Your task to perform on an android device: toggle pop-ups in chrome Image 0: 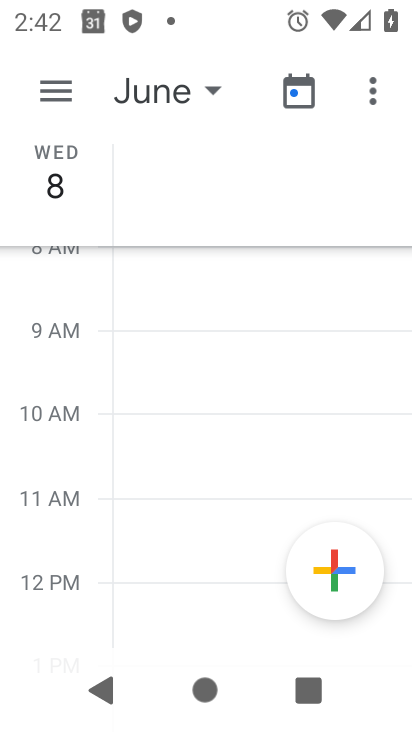
Step 0: press home button
Your task to perform on an android device: toggle pop-ups in chrome Image 1: 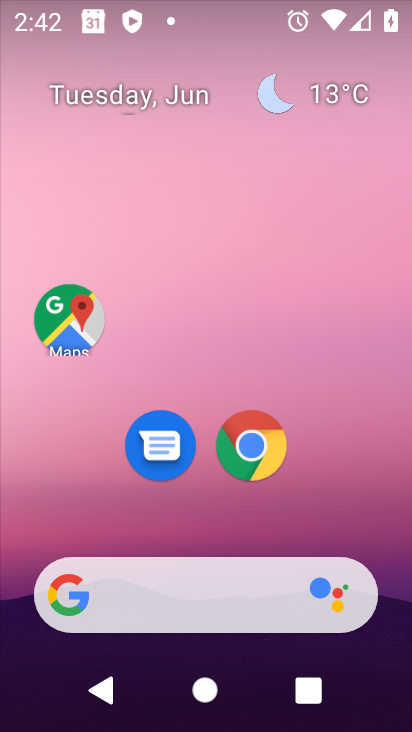
Step 1: click (252, 446)
Your task to perform on an android device: toggle pop-ups in chrome Image 2: 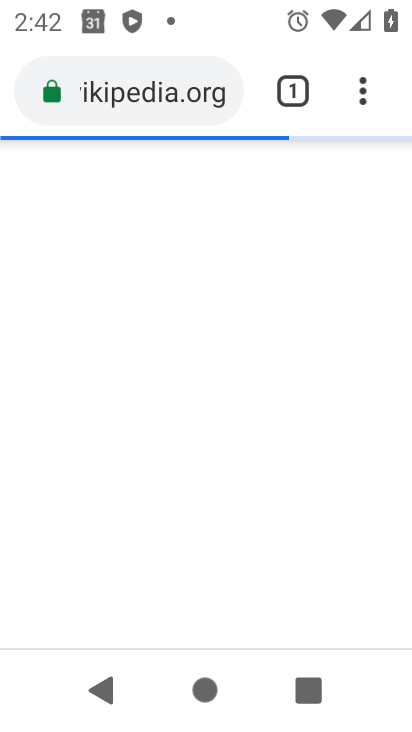
Step 2: click (360, 102)
Your task to perform on an android device: toggle pop-ups in chrome Image 3: 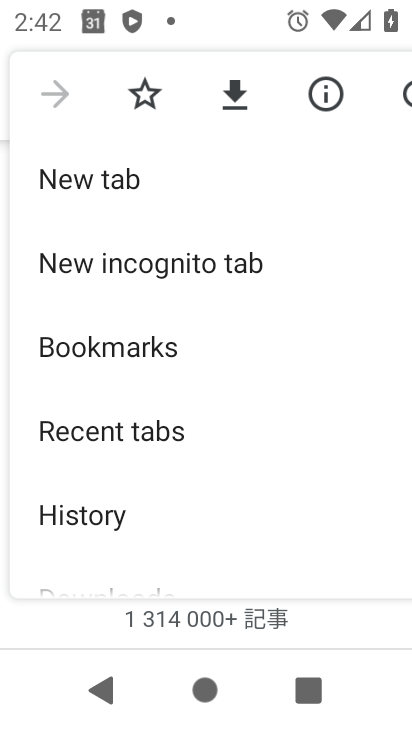
Step 3: drag from (222, 535) to (270, 135)
Your task to perform on an android device: toggle pop-ups in chrome Image 4: 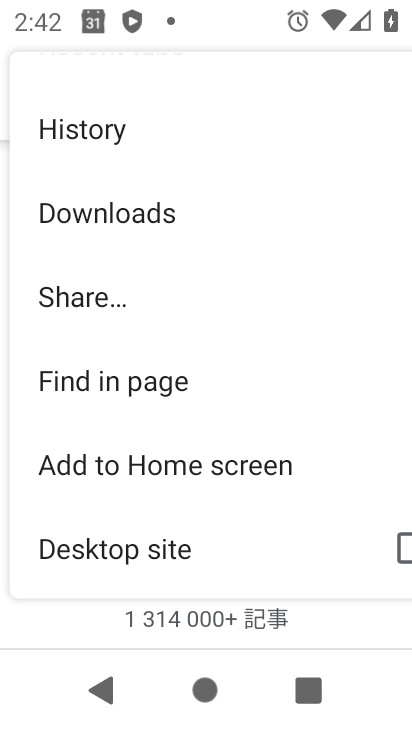
Step 4: drag from (255, 560) to (269, 160)
Your task to perform on an android device: toggle pop-ups in chrome Image 5: 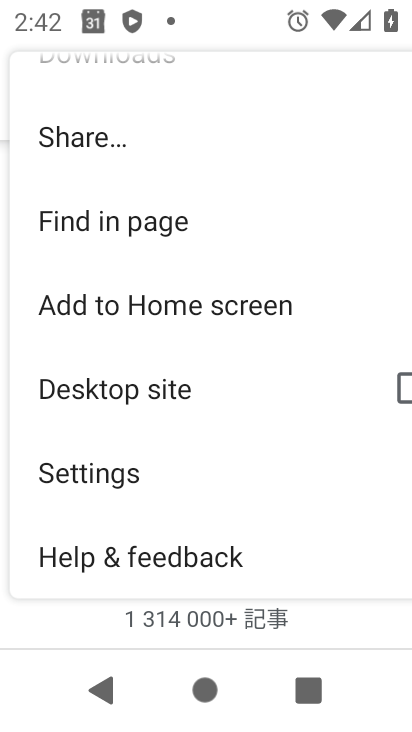
Step 5: click (92, 490)
Your task to perform on an android device: toggle pop-ups in chrome Image 6: 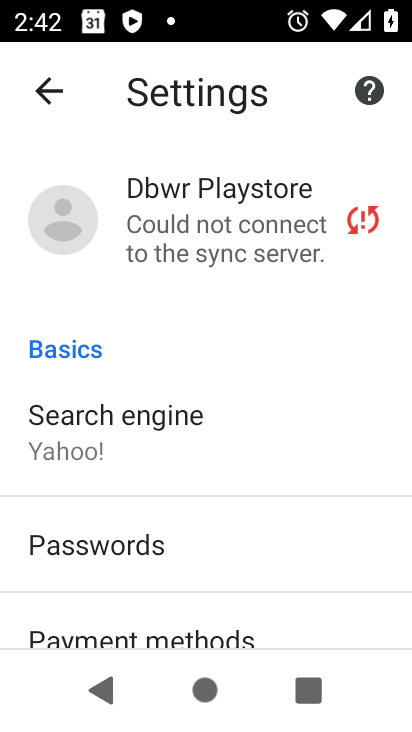
Step 6: drag from (289, 618) to (268, 190)
Your task to perform on an android device: toggle pop-ups in chrome Image 7: 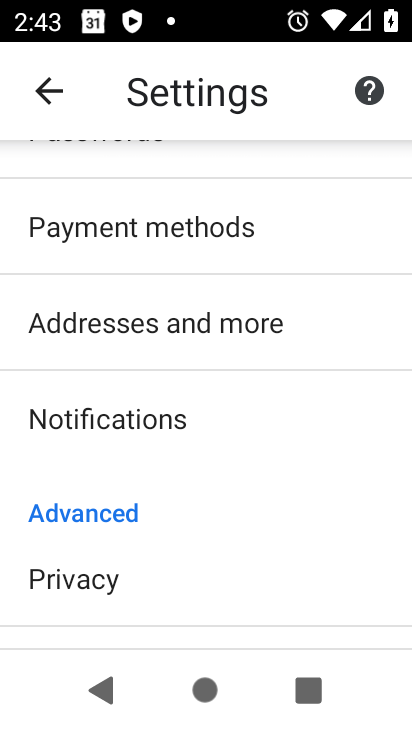
Step 7: drag from (227, 562) to (250, 172)
Your task to perform on an android device: toggle pop-ups in chrome Image 8: 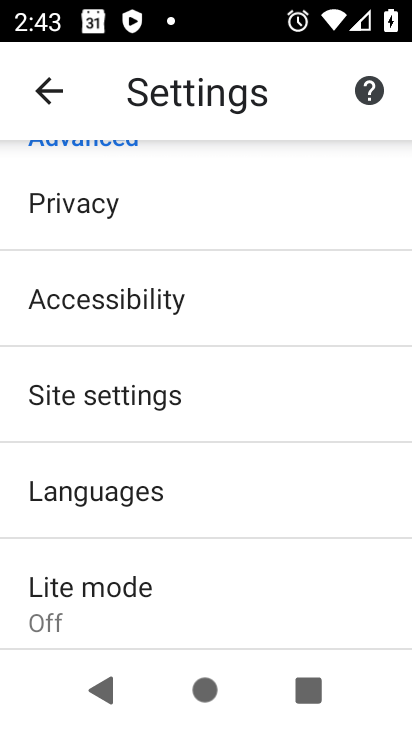
Step 8: click (121, 398)
Your task to perform on an android device: toggle pop-ups in chrome Image 9: 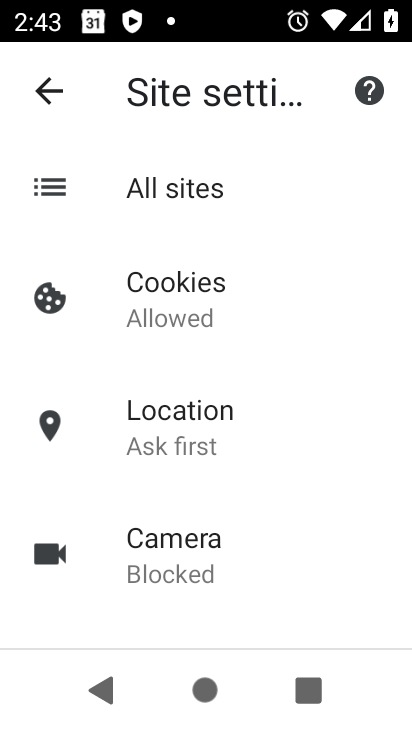
Step 9: drag from (277, 601) to (260, 185)
Your task to perform on an android device: toggle pop-ups in chrome Image 10: 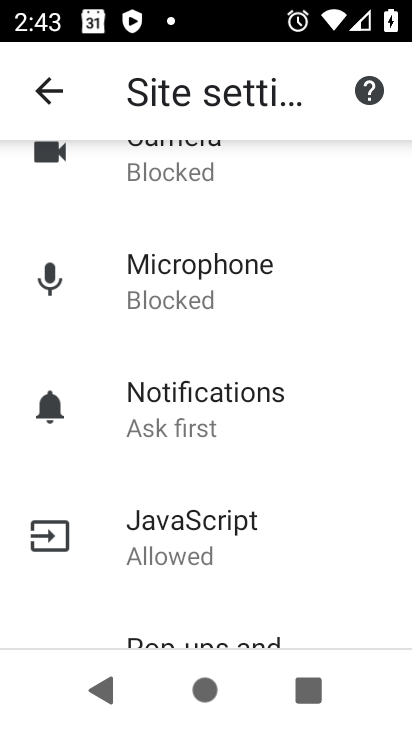
Step 10: drag from (283, 594) to (278, 212)
Your task to perform on an android device: toggle pop-ups in chrome Image 11: 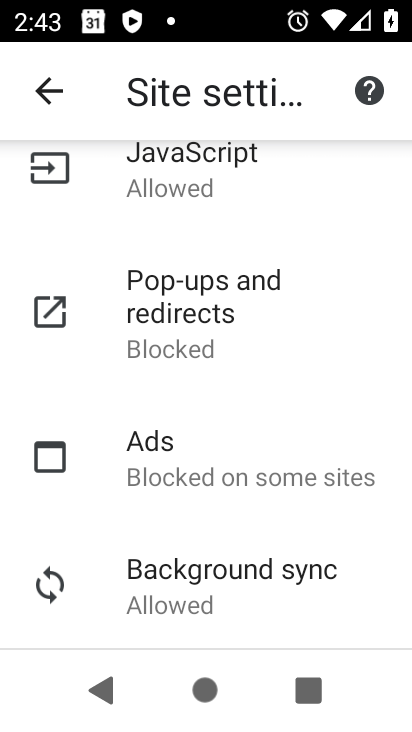
Step 11: click (176, 308)
Your task to perform on an android device: toggle pop-ups in chrome Image 12: 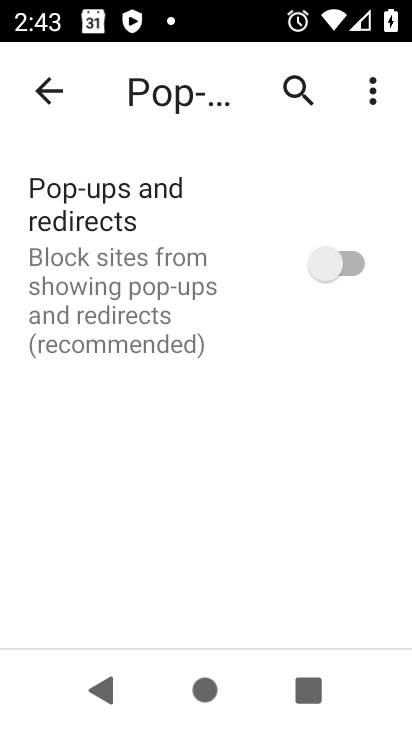
Step 12: click (350, 265)
Your task to perform on an android device: toggle pop-ups in chrome Image 13: 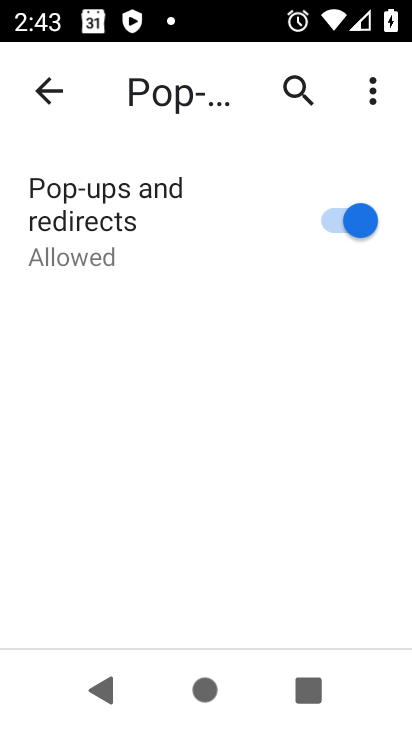
Step 13: task complete